Your task to perform on an android device: Open settings on Google Maps Image 0: 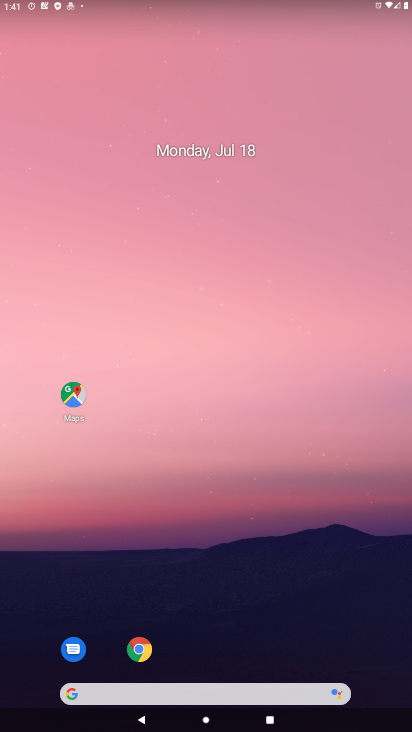
Step 0: drag from (200, 677) to (164, 50)
Your task to perform on an android device: Open settings on Google Maps Image 1: 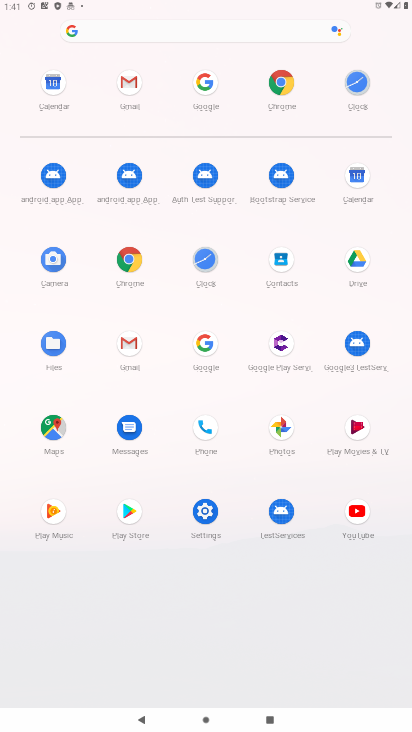
Step 1: click (51, 431)
Your task to perform on an android device: Open settings on Google Maps Image 2: 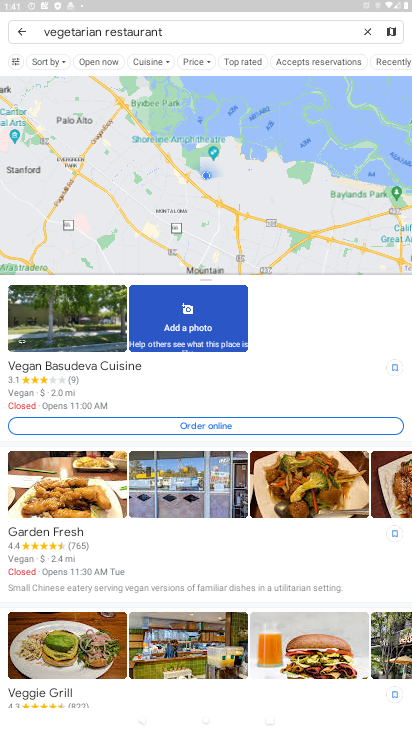
Step 2: click (31, 38)
Your task to perform on an android device: Open settings on Google Maps Image 3: 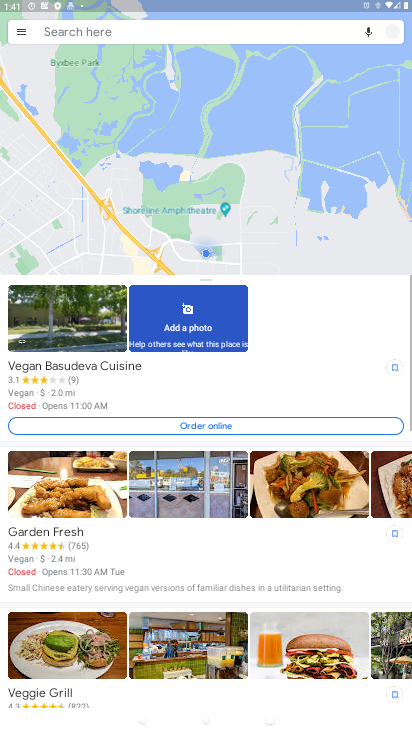
Step 3: click (25, 40)
Your task to perform on an android device: Open settings on Google Maps Image 4: 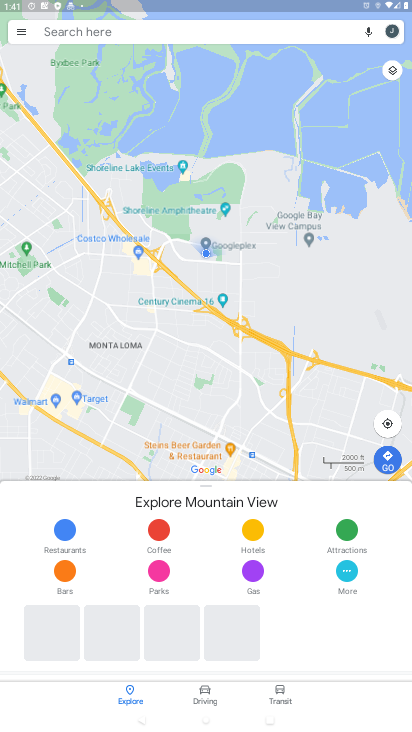
Step 4: click (15, 31)
Your task to perform on an android device: Open settings on Google Maps Image 5: 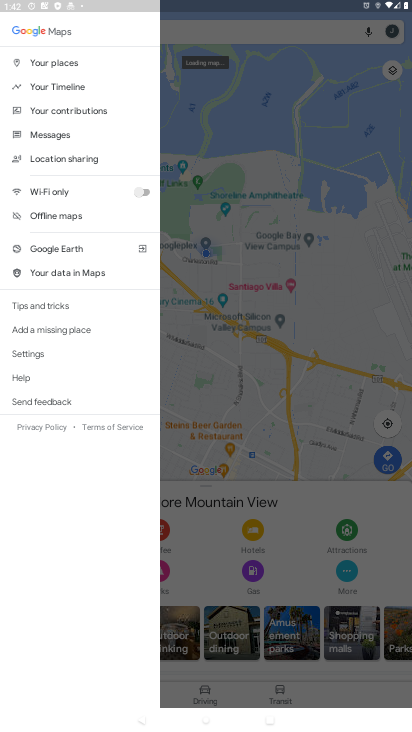
Step 5: click (76, 368)
Your task to perform on an android device: Open settings on Google Maps Image 6: 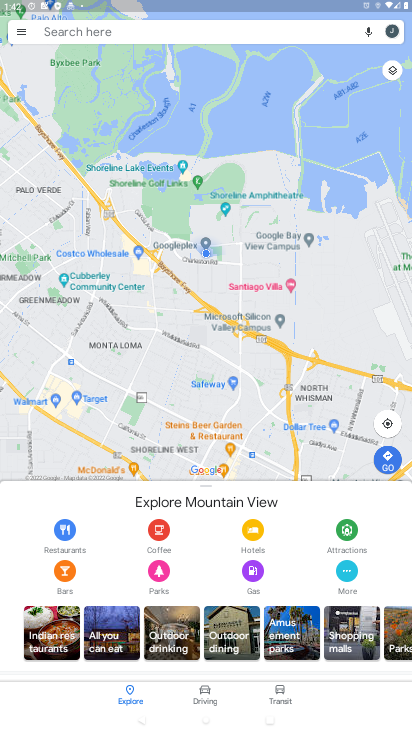
Step 6: click (15, 27)
Your task to perform on an android device: Open settings on Google Maps Image 7: 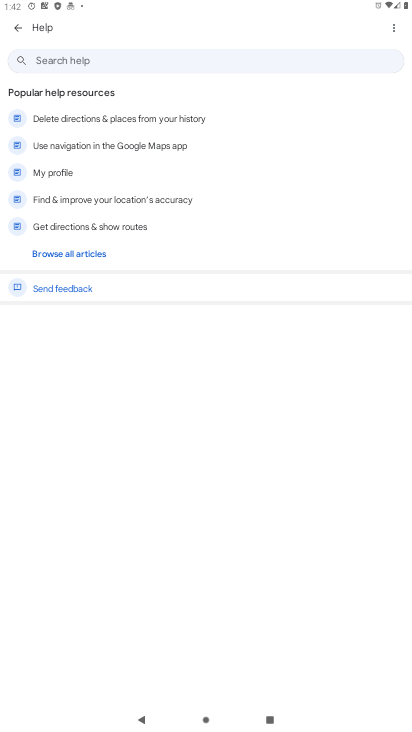
Step 7: task complete